Your task to perform on an android device: toggle location history Image 0: 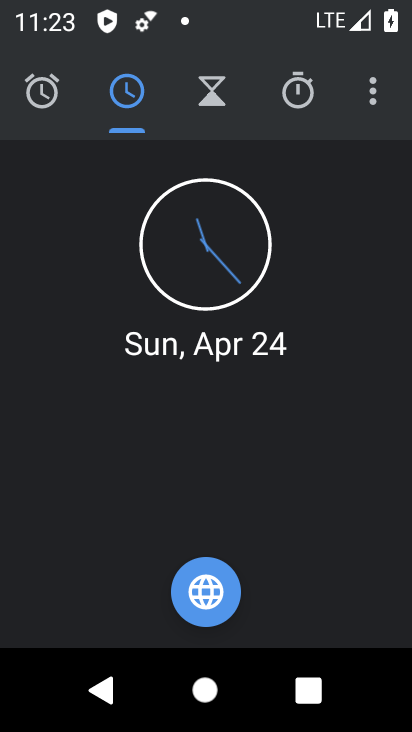
Step 0: press home button
Your task to perform on an android device: toggle location history Image 1: 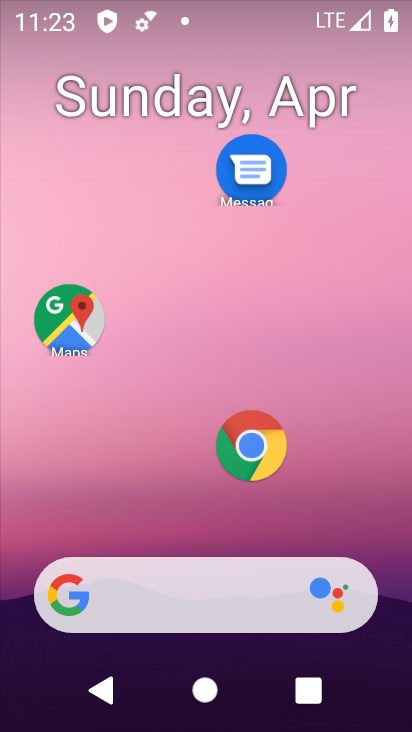
Step 1: drag from (148, 590) to (297, 86)
Your task to perform on an android device: toggle location history Image 2: 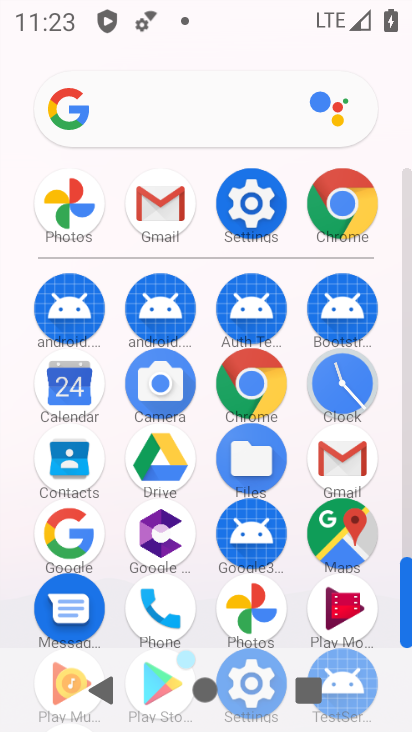
Step 2: click (250, 190)
Your task to perform on an android device: toggle location history Image 3: 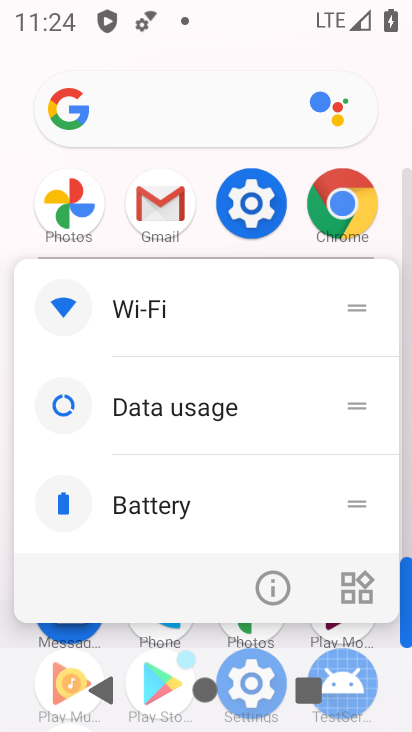
Step 3: click (255, 218)
Your task to perform on an android device: toggle location history Image 4: 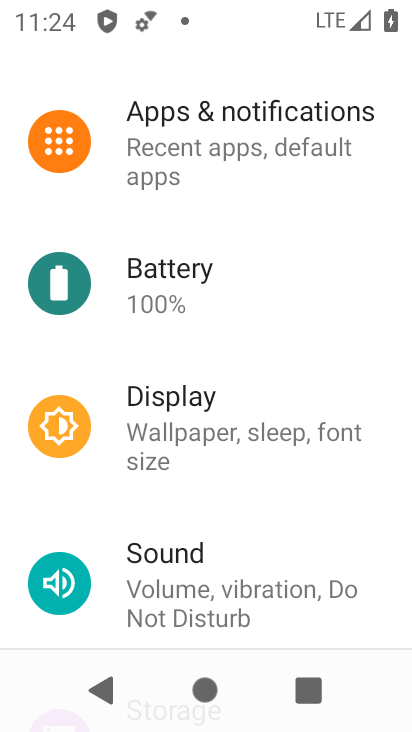
Step 4: drag from (213, 600) to (366, 126)
Your task to perform on an android device: toggle location history Image 5: 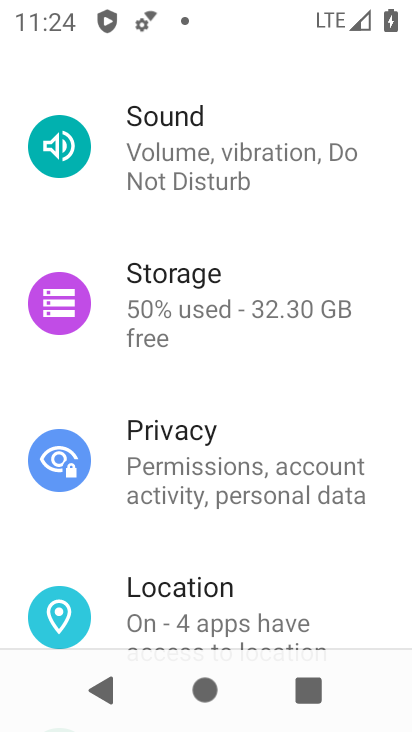
Step 5: click (194, 610)
Your task to perform on an android device: toggle location history Image 6: 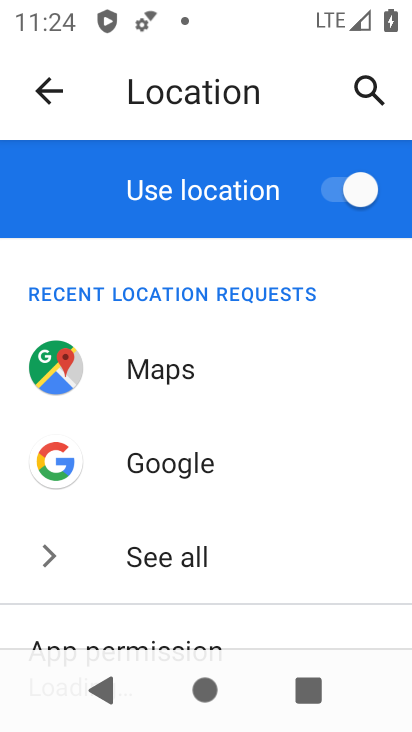
Step 6: drag from (197, 579) to (391, 83)
Your task to perform on an android device: toggle location history Image 7: 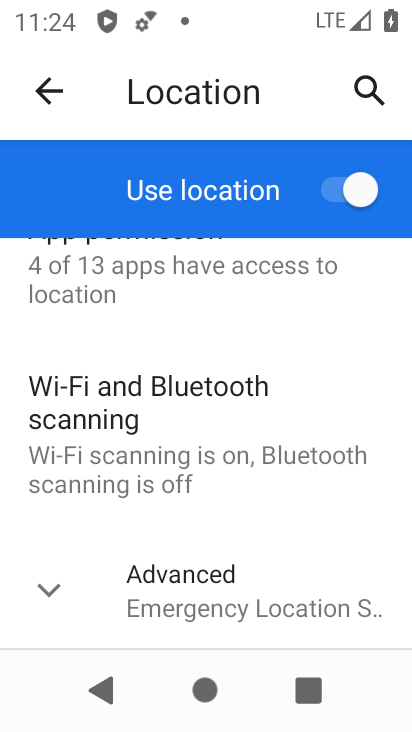
Step 7: click (200, 575)
Your task to perform on an android device: toggle location history Image 8: 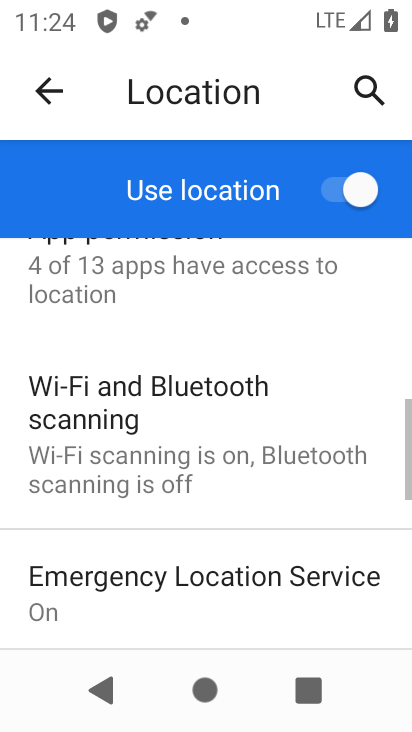
Step 8: drag from (223, 526) to (411, 166)
Your task to perform on an android device: toggle location history Image 9: 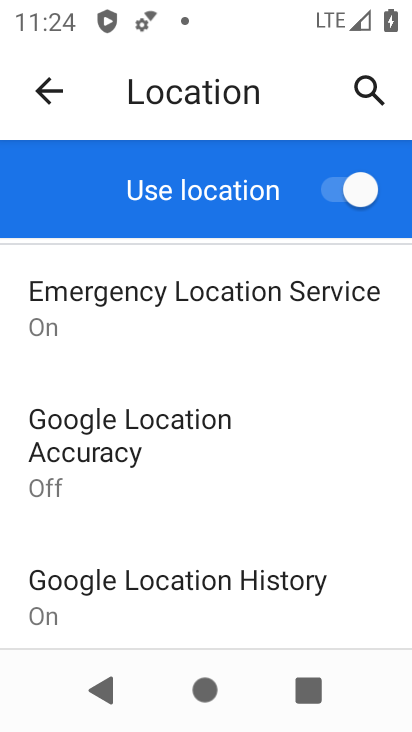
Step 9: click (190, 598)
Your task to perform on an android device: toggle location history Image 10: 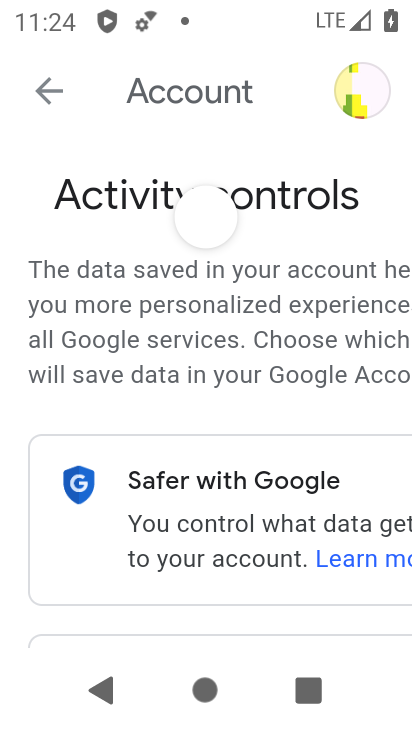
Step 10: drag from (200, 480) to (336, 184)
Your task to perform on an android device: toggle location history Image 11: 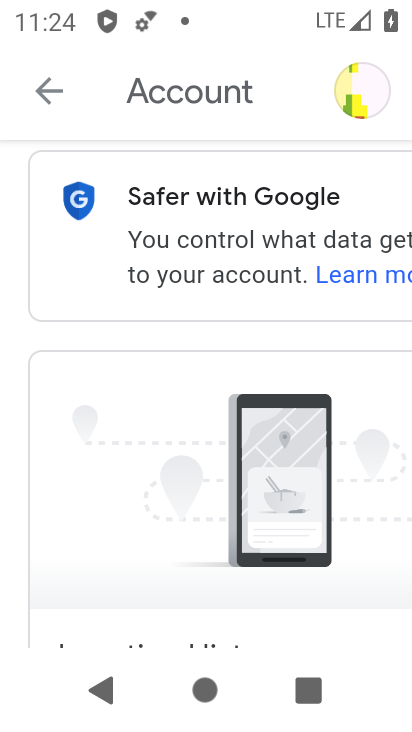
Step 11: drag from (163, 610) to (319, 283)
Your task to perform on an android device: toggle location history Image 12: 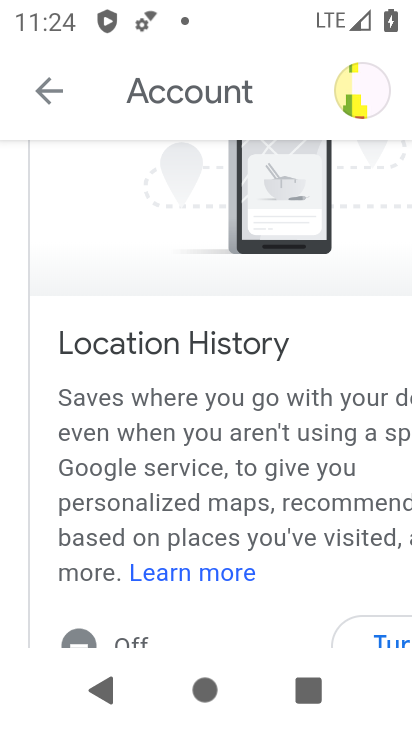
Step 12: drag from (189, 574) to (266, 260)
Your task to perform on an android device: toggle location history Image 13: 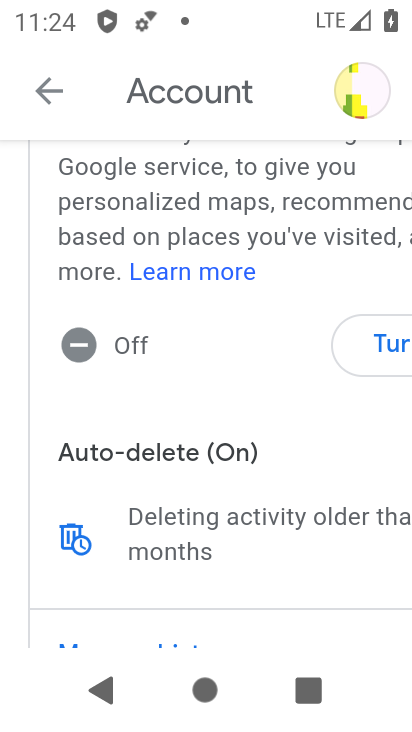
Step 13: click (388, 347)
Your task to perform on an android device: toggle location history Image 14: 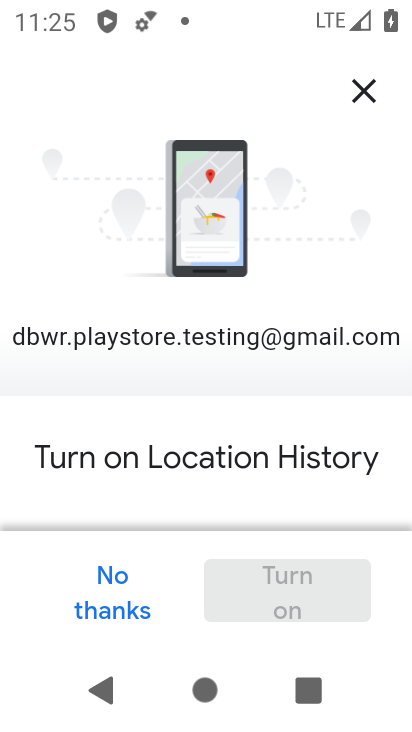
Step 14: drag from (181, 503) to (299, 139)
Your task to perform on an android device: toggle location history Image 15: 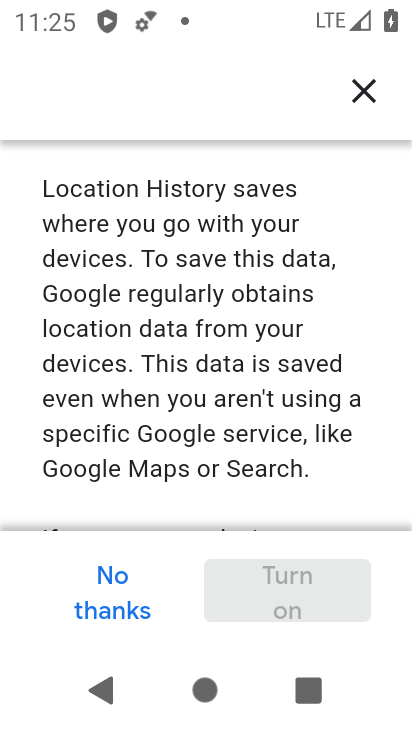
Step 15: drag from (190, 475) to (317, 24)
Your task to perform on an android device: toggle location history Image 16: 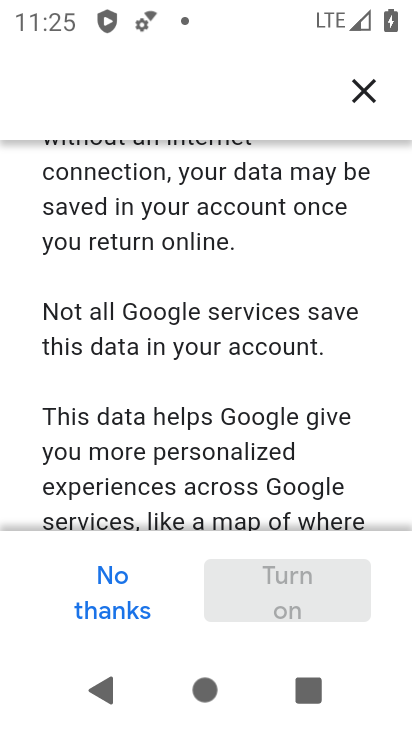
Step 16: drag from (175, 438) to (342, 86)
Your task to perform on an android device: toggle location history Image 17: 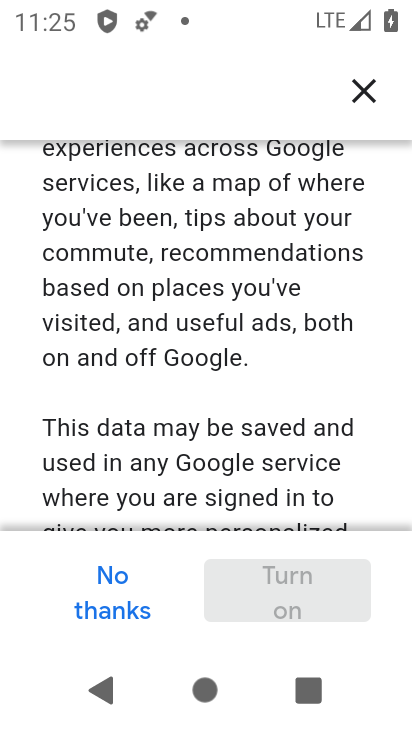
Step 17: drag from (179, 489) to (370, 32)
Your task to perform on an android device: toggle location history Image 18: 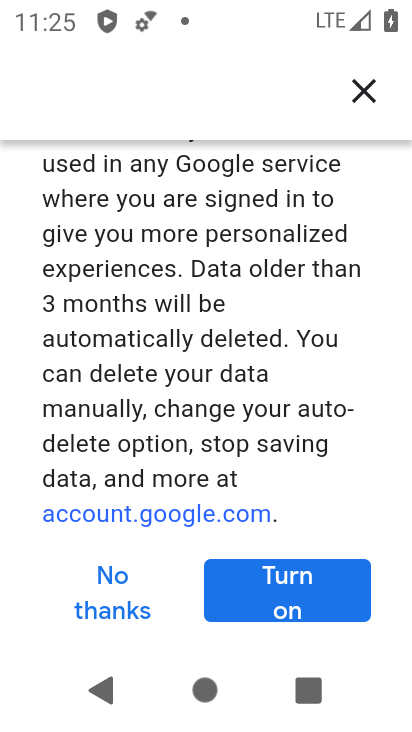
Step 18: click (293, 605)
Your task to perform on an android device: toggle location history Image 19: 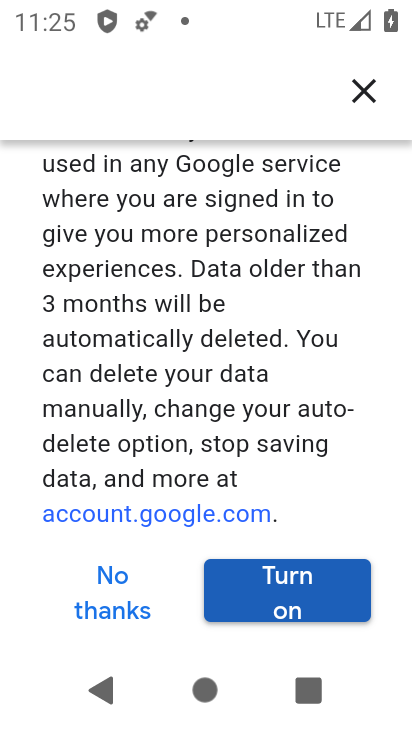
Step 19: click (291, 591)
Your task to perform on an android device: toggle location history Image 20: 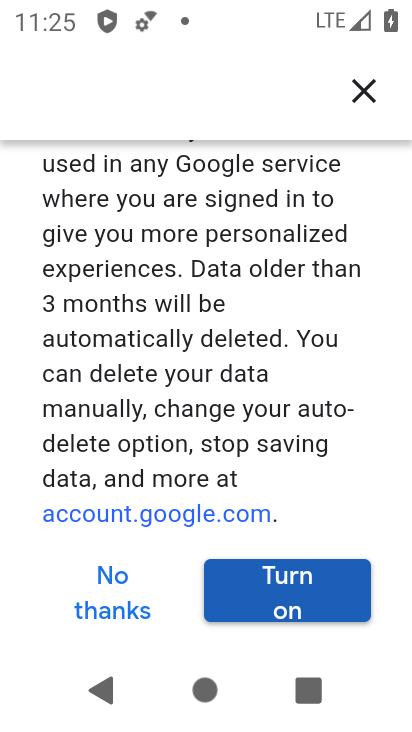
Step 20: click (292, 610)
Your task to perform on an android device: toggle location history Image 21: 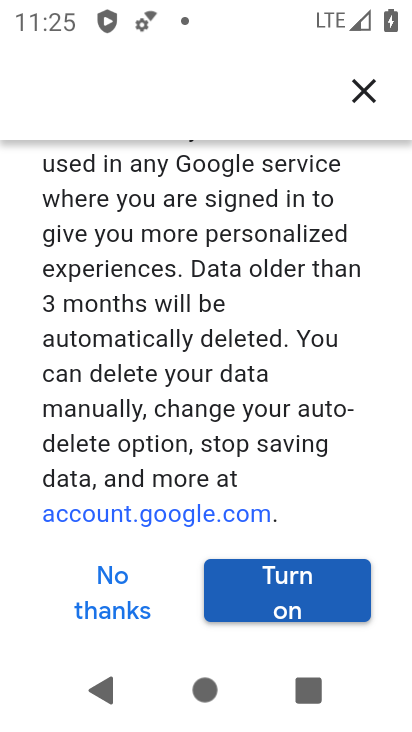
Step 21: click (284, 596)
Your task to perform on an android device: toggle location history Image 22: 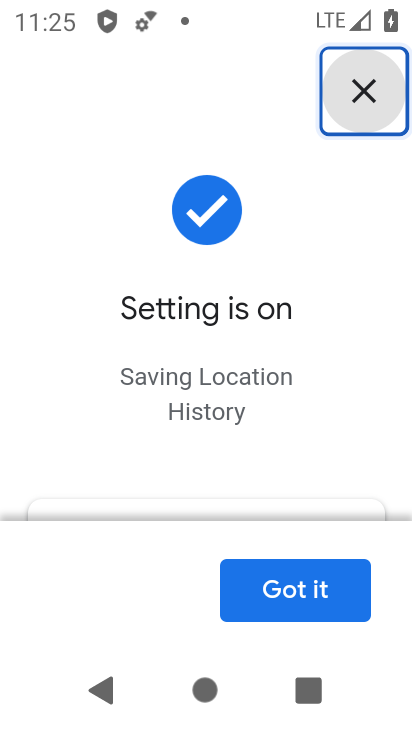
Step 22: click (290, 591)
Your task to perform on an android device: toggle location history Image 23: 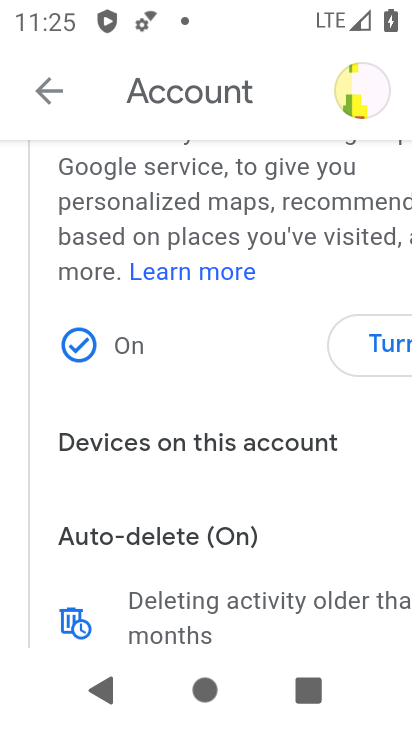
Step 23: task complete